Your task to perform on an android device: Who is the president of the United States? Image 0: 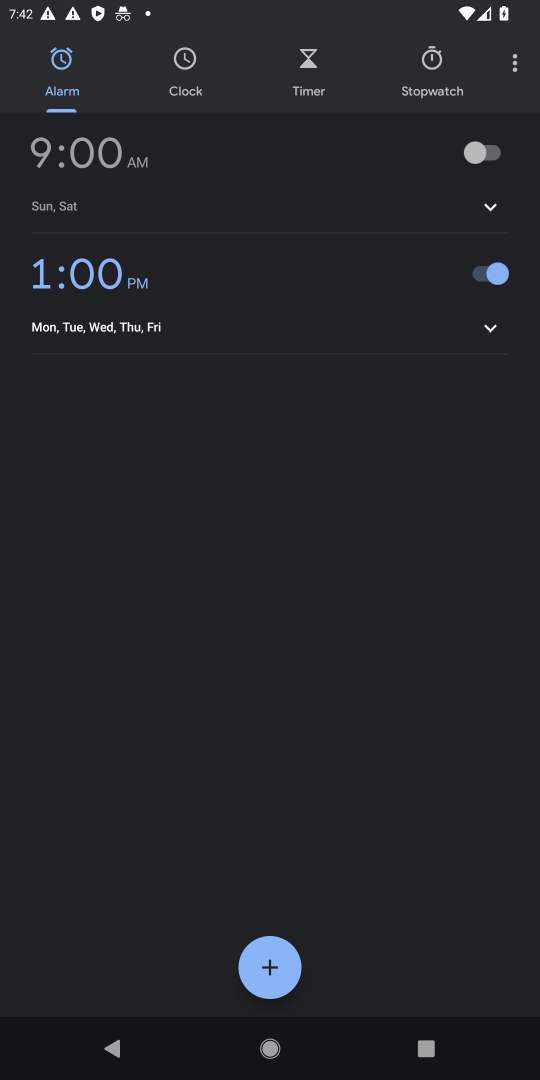
Step 0: press home button
Your task to perform on an android device: Who is the president of the United States? Image 1: 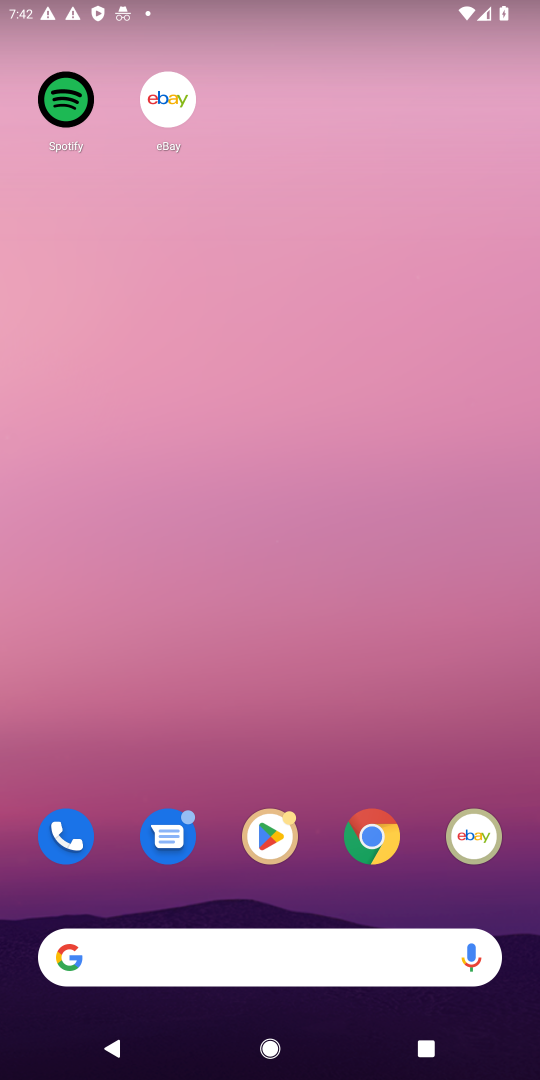
Step 1: click (353, 842)
Your task to perform on an android device: Who is the president of the United States? Image 2: 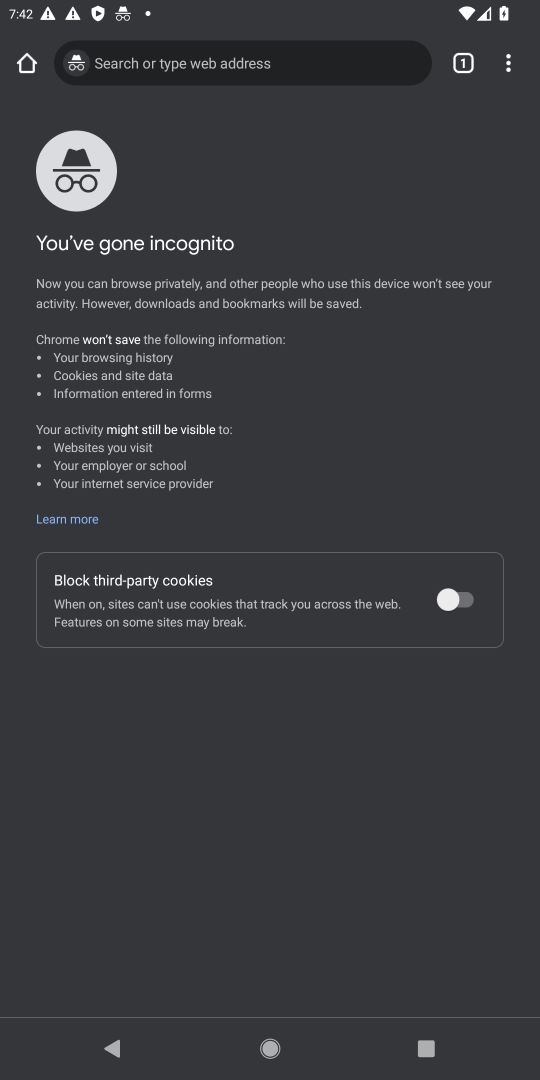
Step 2: drag from (508, 61) to (394, 182)
Your task to perform on an android device: Who is the president of the United States? Image 3: 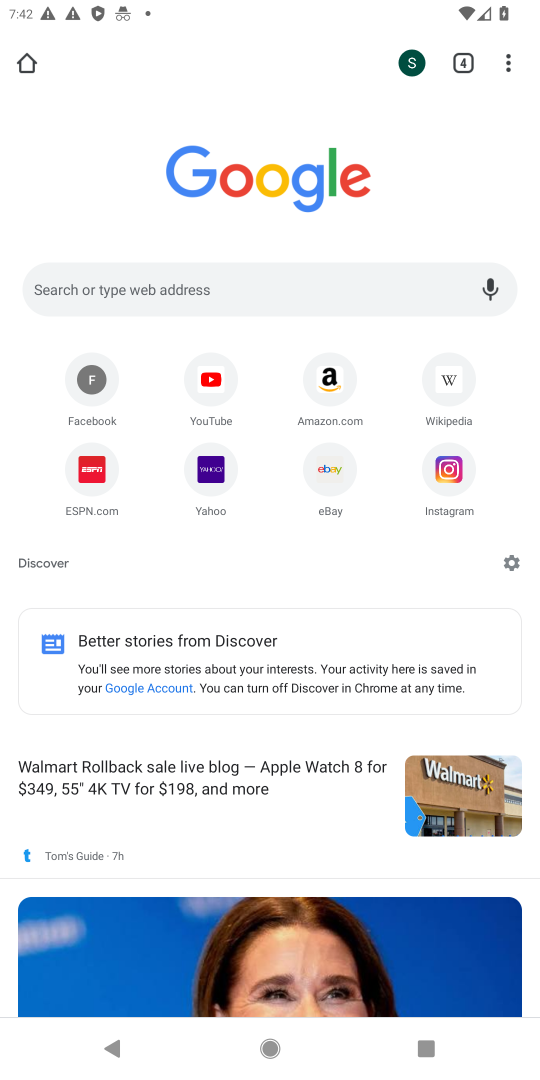
Step 3: click (251, 280)
Your task to perform on an android device: Who is the president of the United States? Image 4: 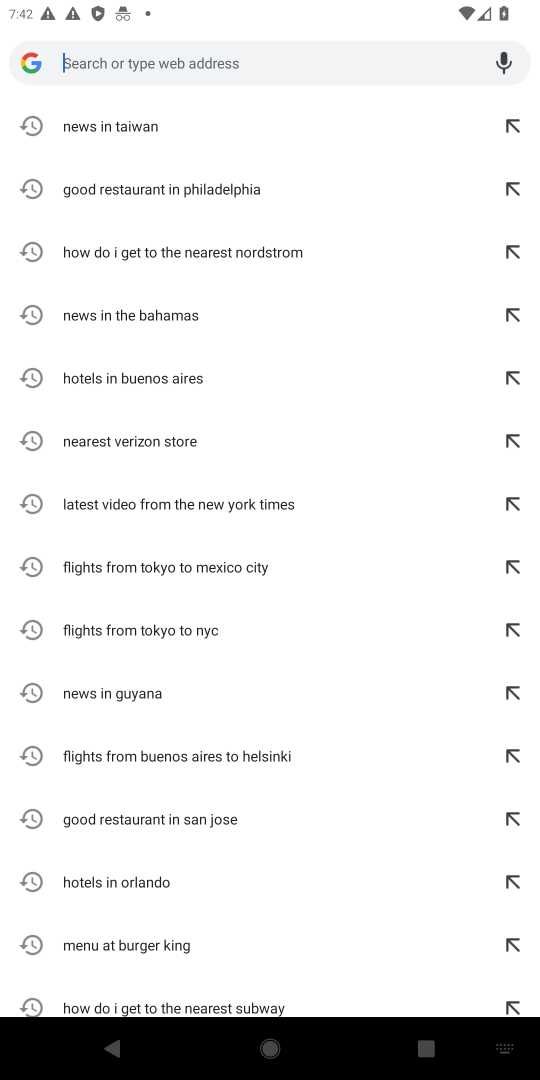
Step 4: type "president of the United States"
Your task to perform on an android device: Who is the president of the United States? Image 5: 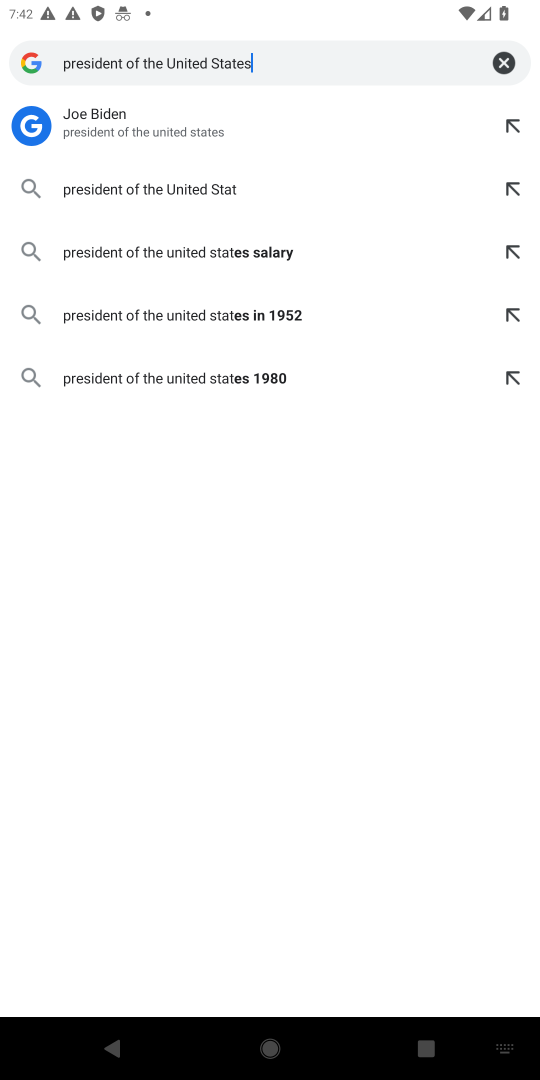
Step 5: press enter
Your task to perform on an android device: Who is the president of the United States? Image 6: 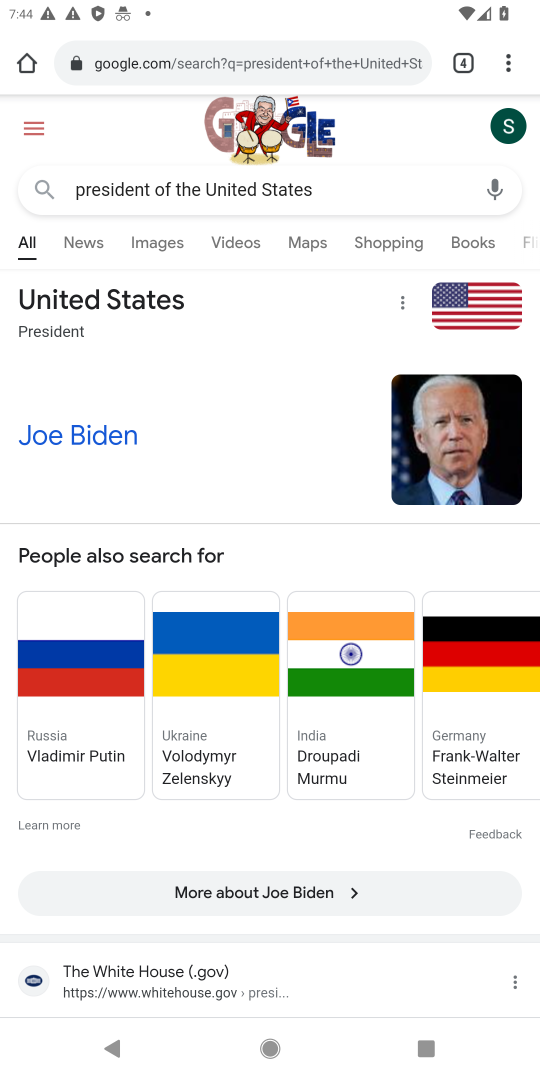
Step 6: task complete